Your task to perform on an android device: change alarm snooze length Image 0: 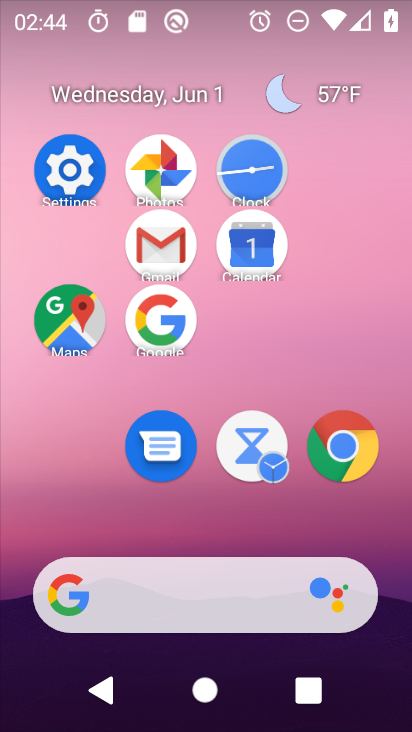
Step 0: click (252, 165)
Your task to perform on an android device: change alarm snooze length Image 1: 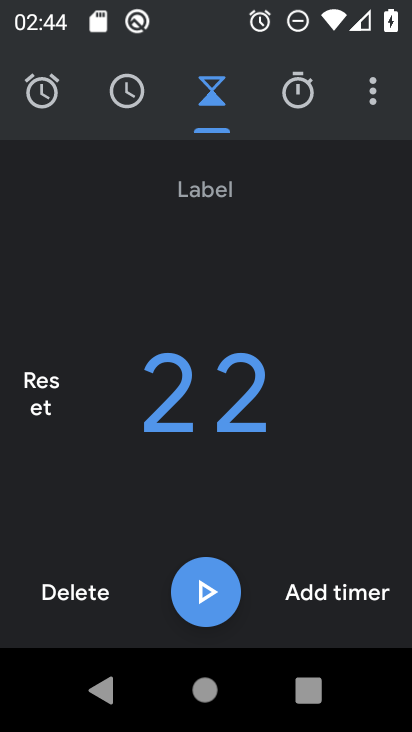
Step 1: click (371, 96)
Your task to perform on an android device: change alarm snooze length Image 2: 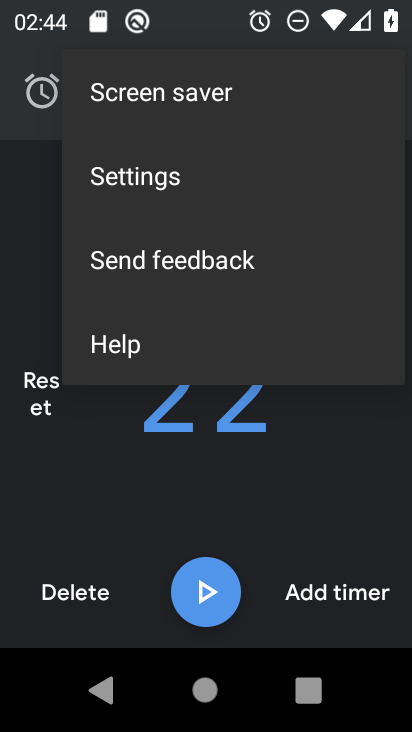
Step 2: click (217, 193)
Your task to perform on an android device: change alarm snooze length Image 3: 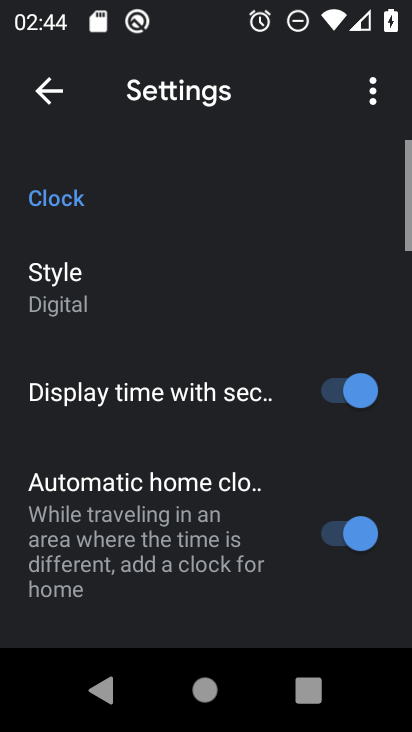
Step 3: drag from (171, 470) to (205, 127)
Your task to perform on an android device: change alarm snooze length Image 4: 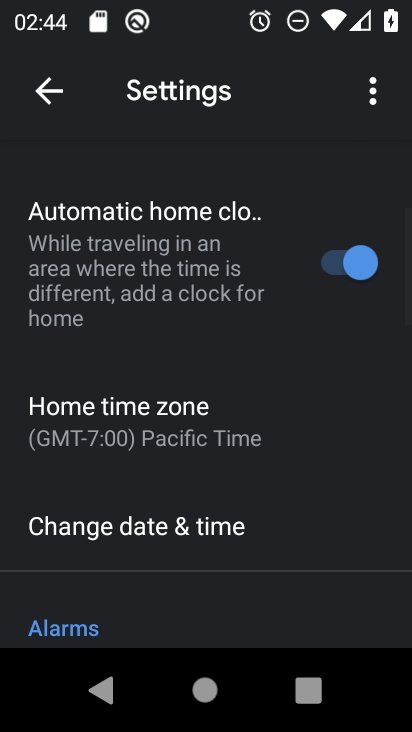
Step 4: drag from (179, 539) to (158, 165)
Your task to perform on an android device: change alarm snooze length Image 5: 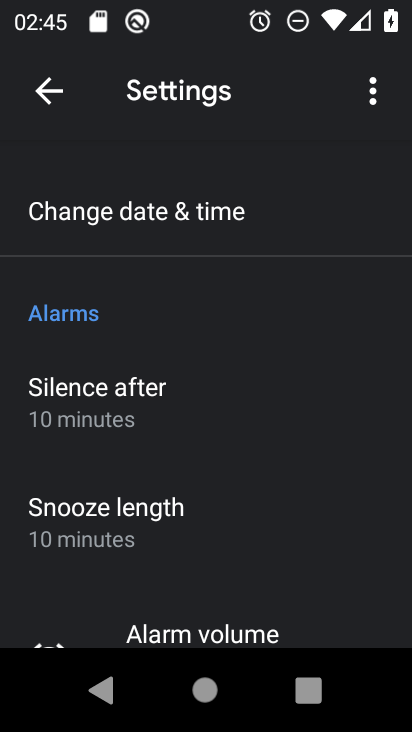
Step 5: click (154, 506)
Your task to perform on an android device: change alarm snooze length Image 6: 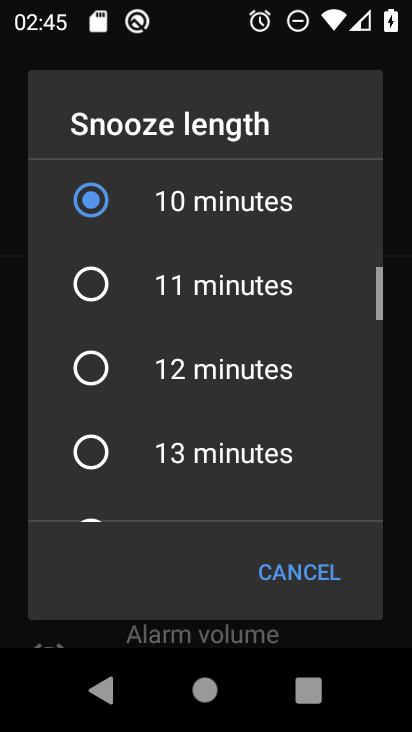
Step 6: click (206, 291)
Your task to perform on an android device: change alarm snooze length Image 7: 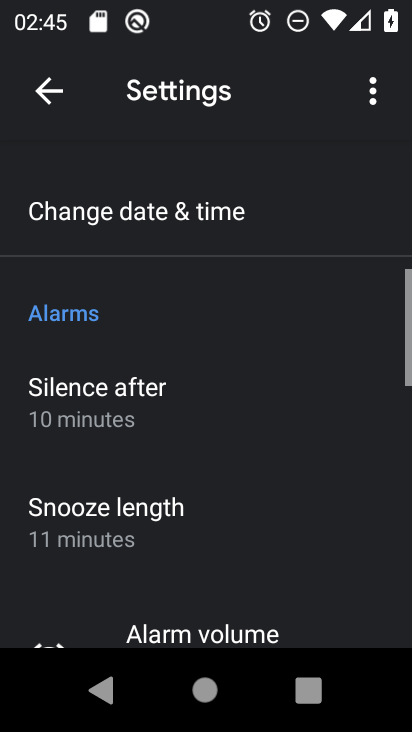
Step 7: task complete